Your task to perform on an android device: turn off wifi Image 0: 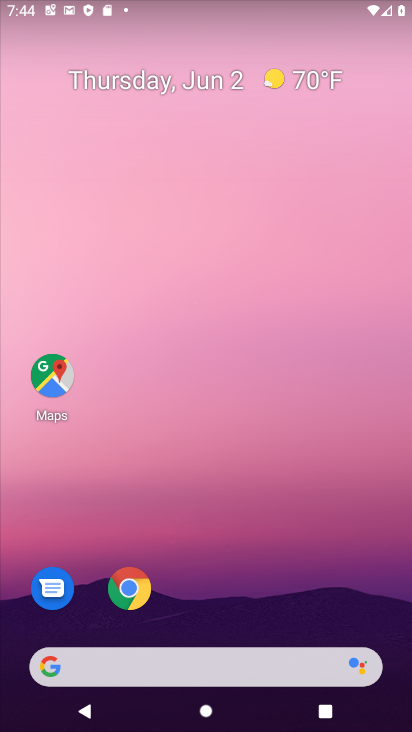
Step 0: drag from (214, 585) to (247, 103)
Your task to perform on an android device: turn off wifi Image 1: 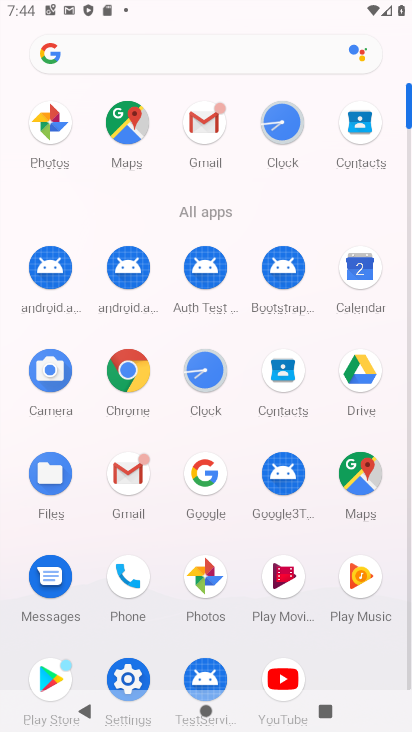
Step 1: click (125, 665)
Your task to perform on an android device: turn off wifi Image 2: 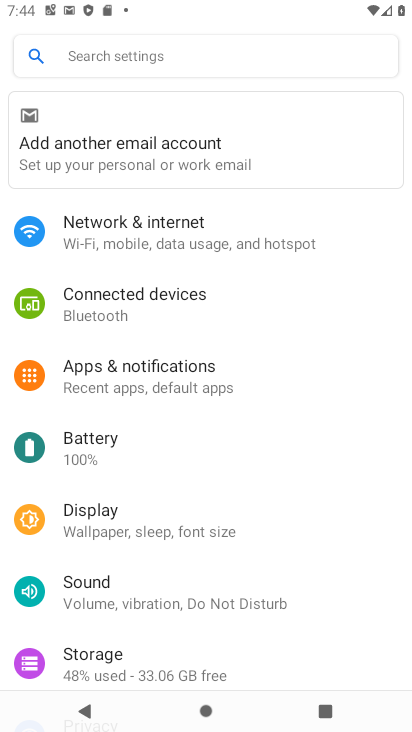
Step 2: click (178, 241)
Your task to perform on an android device: turn off wifi Image 3: 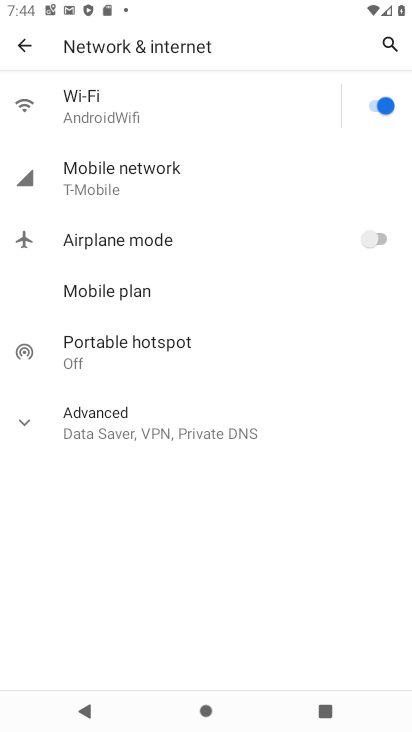
Step 3: click (381, 104)
Your task to perform on an android device: turn off wifi Image 4: 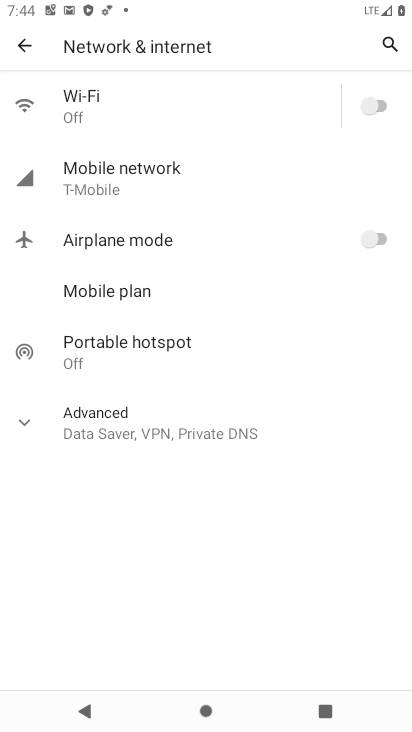
Step 4: task complete